Your task to perform on an android device: toggle notification dots Image 0: 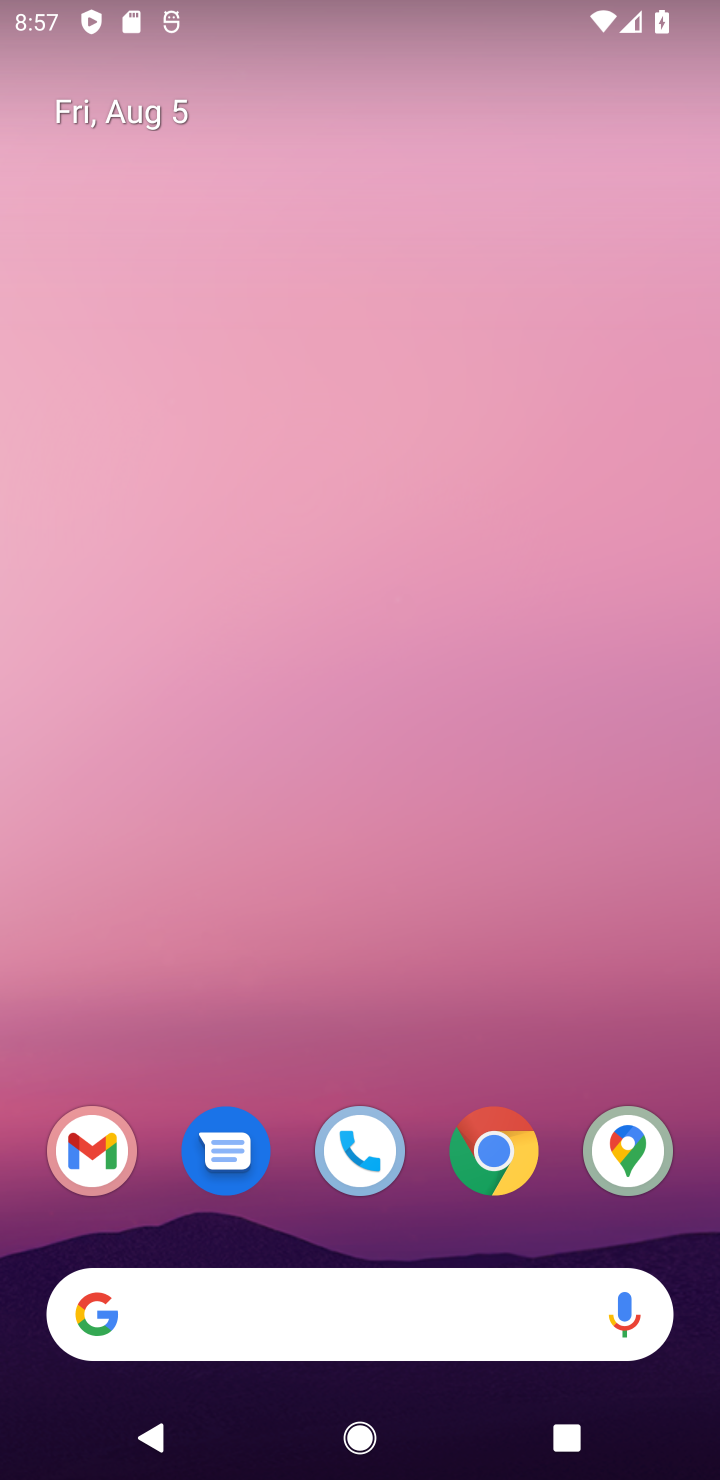
Step 0: drag from (394, 819) to (247, 40)
Your task to perform on an android device: toggle notification dots Image 1: 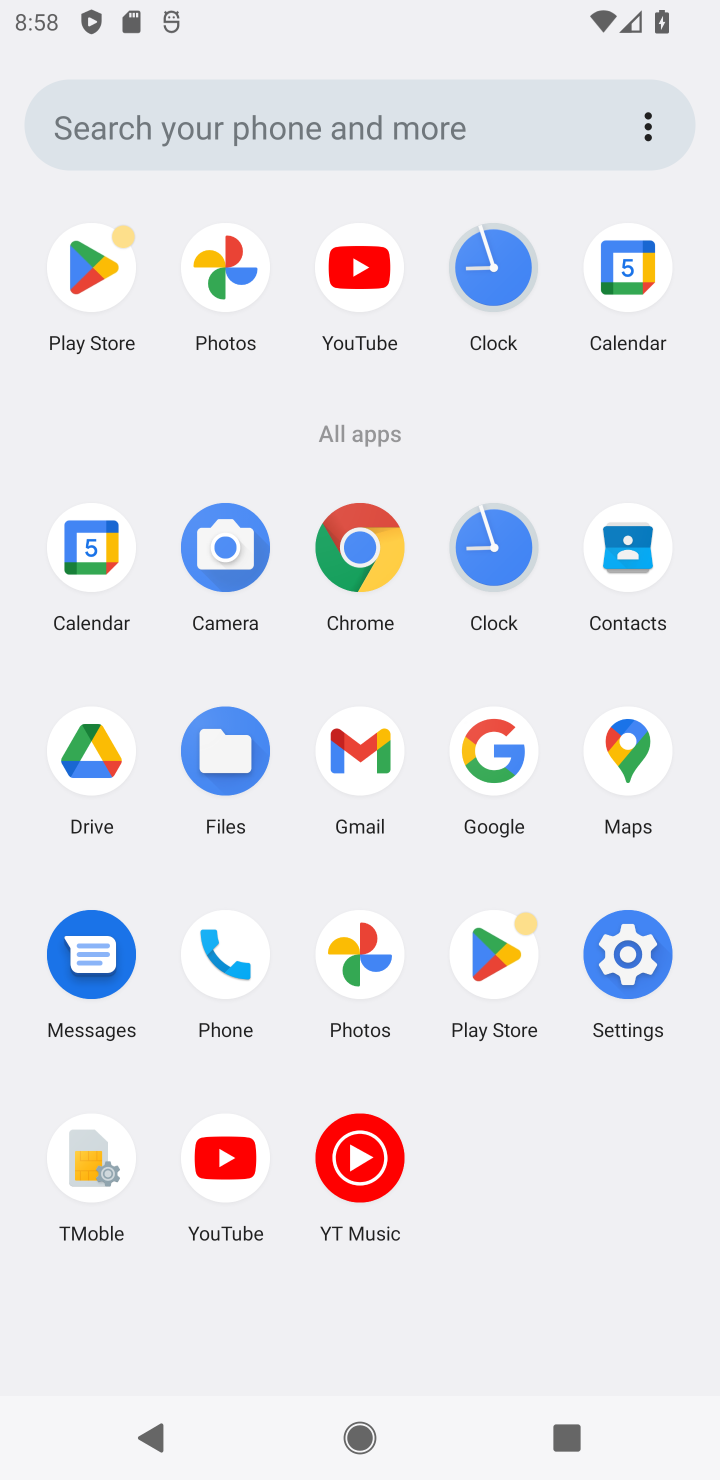
Step 1: drag from (605, 1084) to (643, 954)
Your task to perform on an android device: toggle notification dots Image 2: 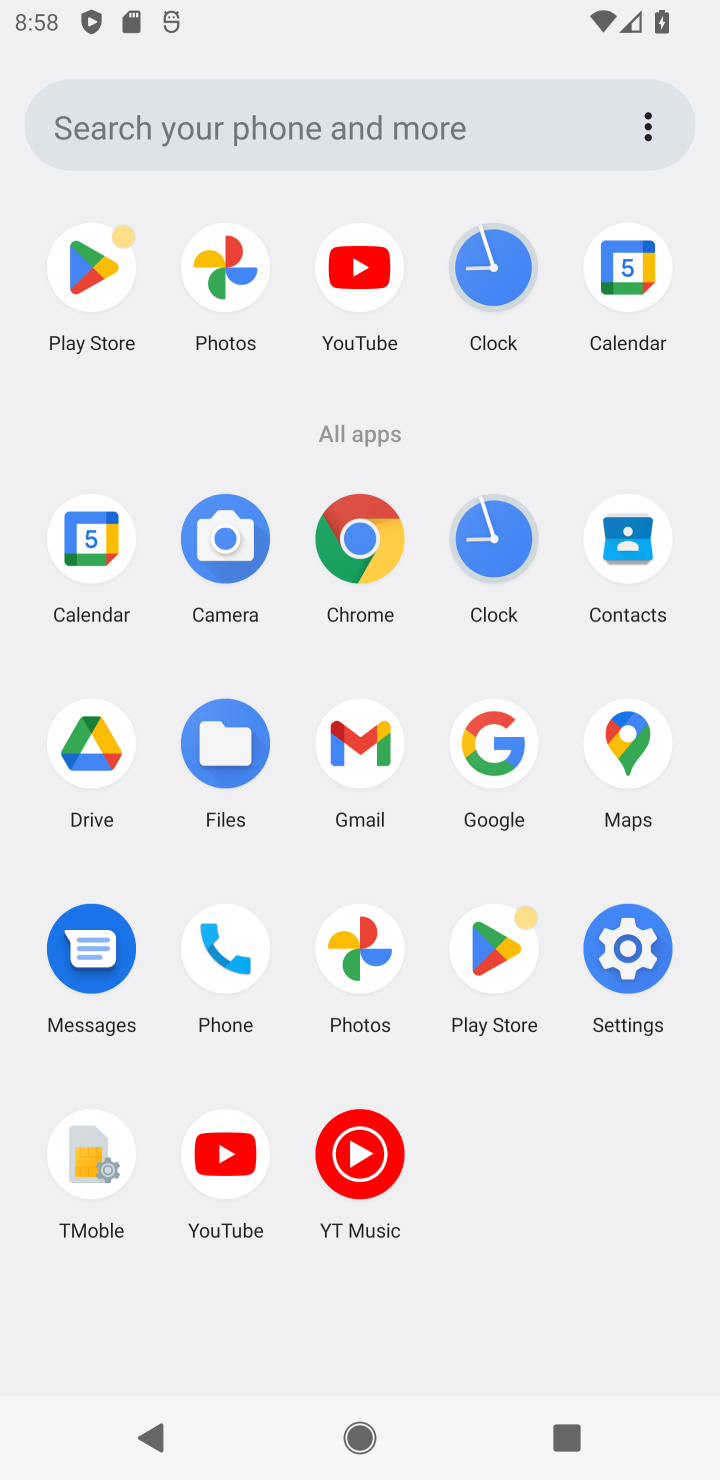
Step 2: click (643, 954)
Your task to perform on an android device: toggle notification dots Image 3: 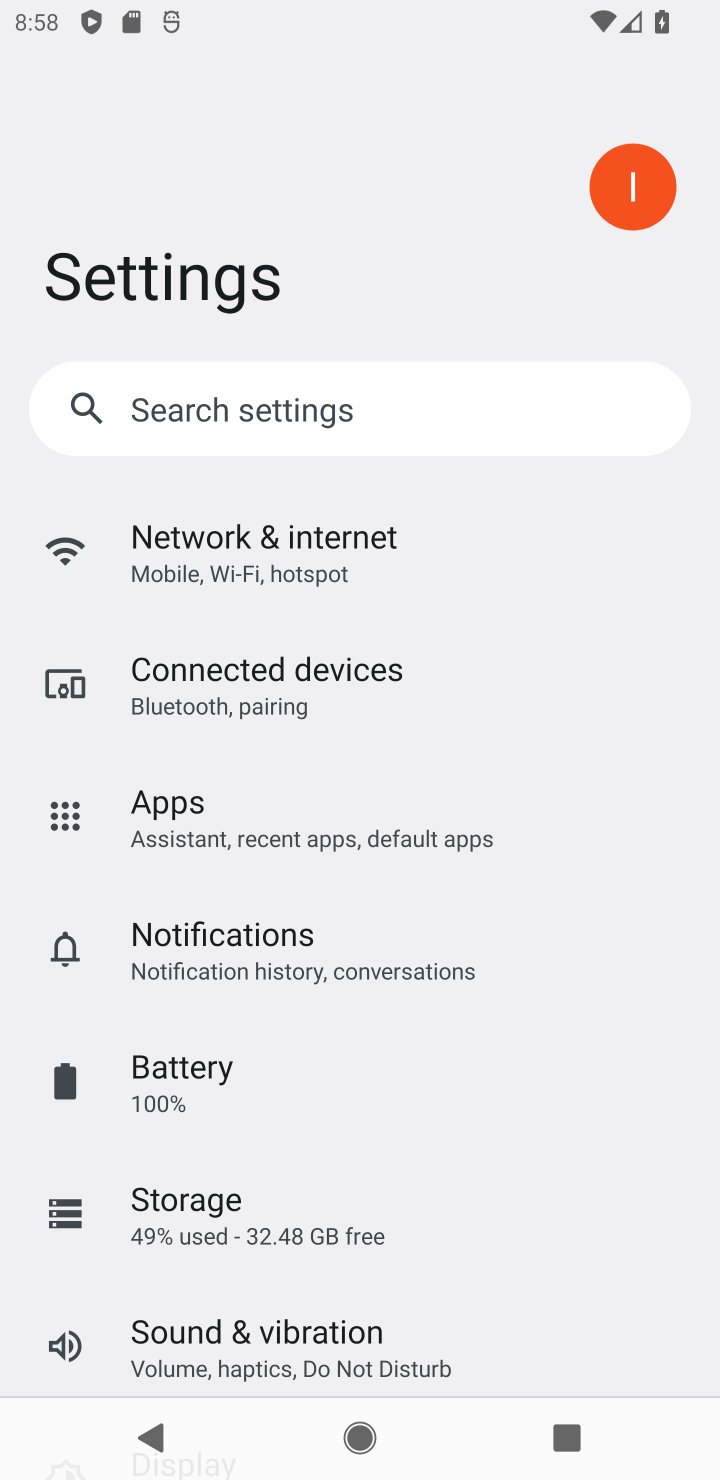
Step 3: click (277, 945)
Your task to perform on an android device: toggle notification dots Image 4: 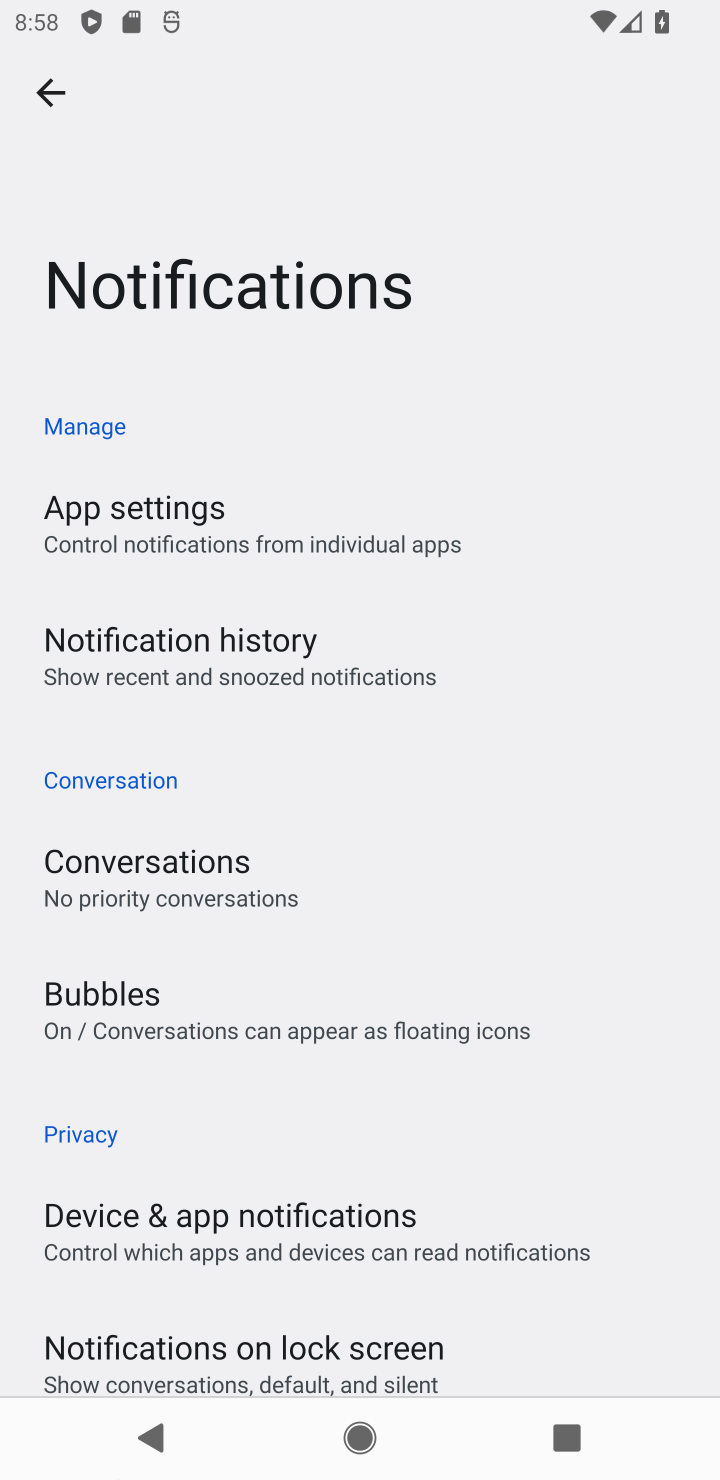
Step 4: drag from (255, 1176) to (203, 537)
Your task to perform on an android device: toggle notification dots Image 5: 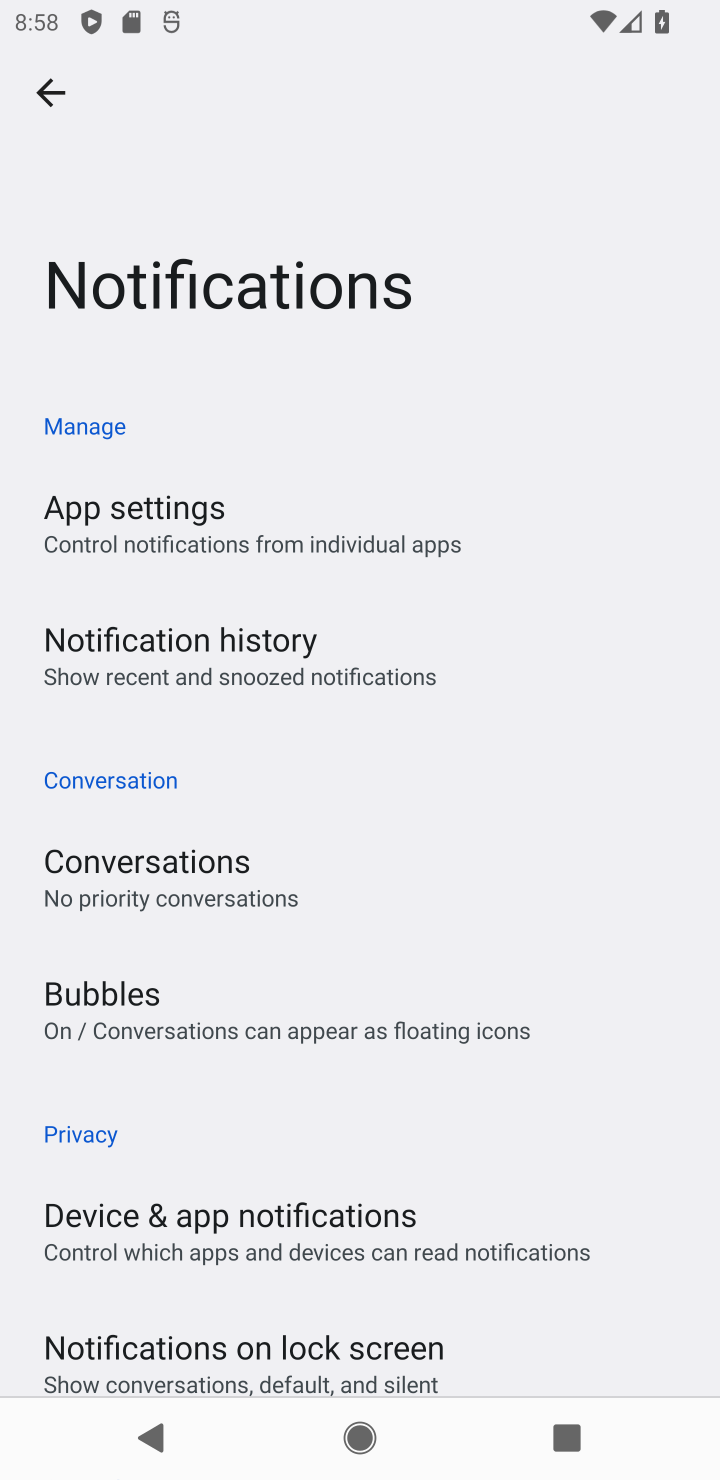
Step 5: drag from (188, 1254) to (180, 770)
Your task to perform on an android device: toggle notification dots Image 6: 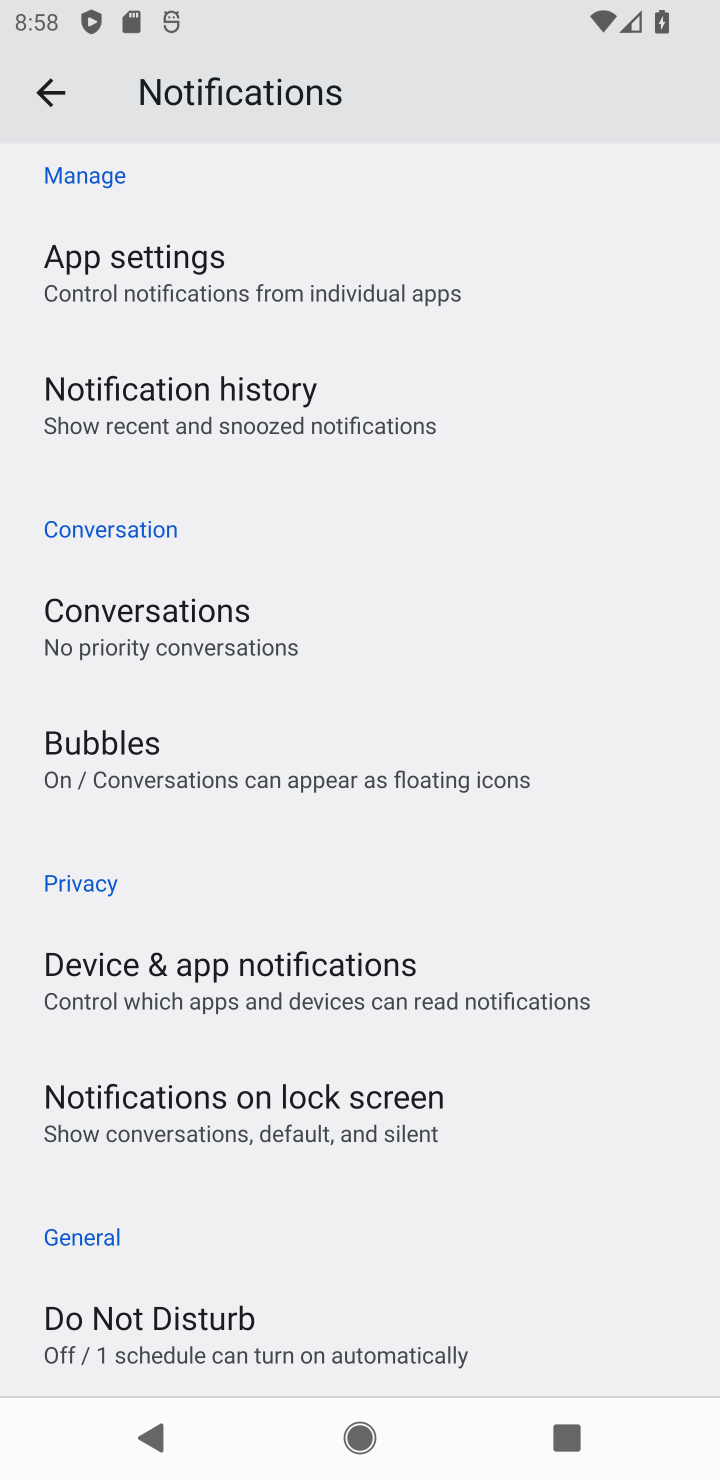
Step 6: drag from (223, 1000) to (213, 362)
Your task to perform on an android device: toggle notification dots Image 7: 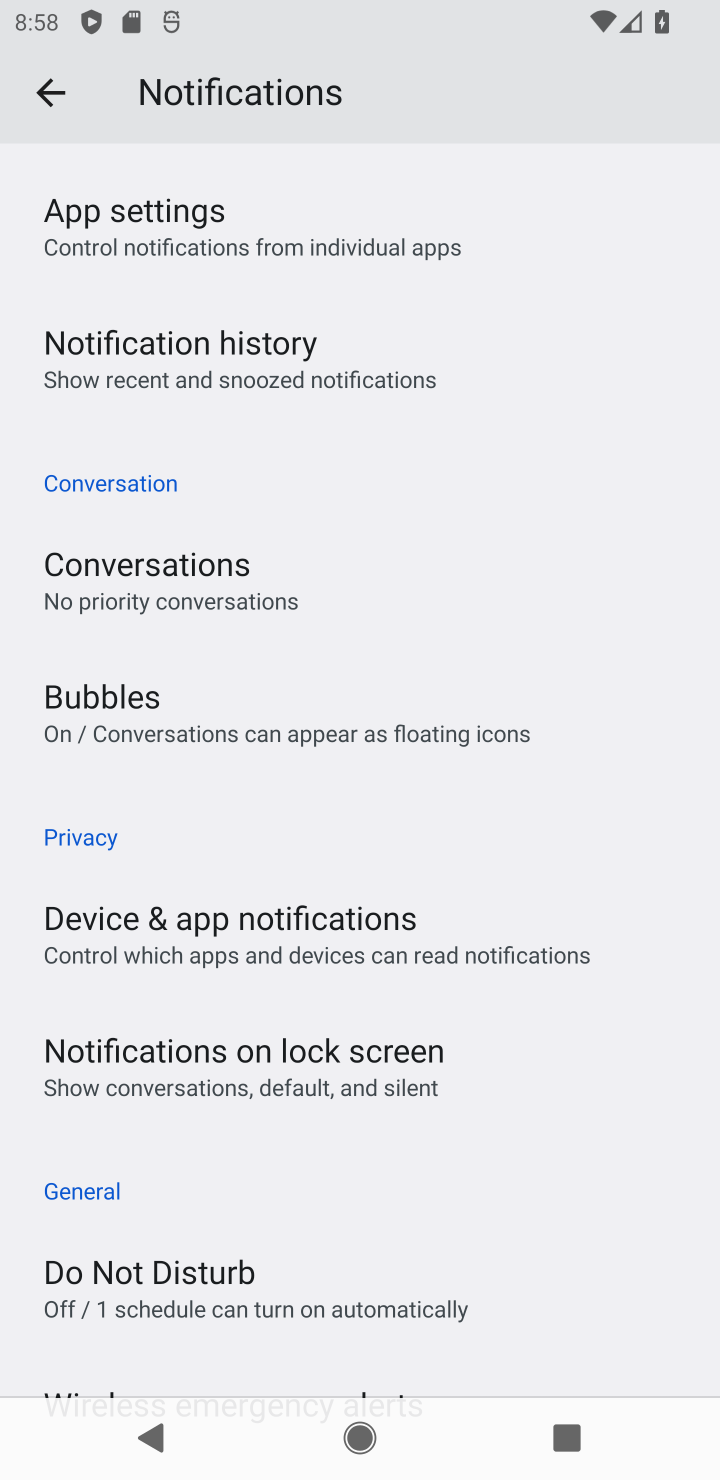
Step 7: drag from (363, 1181) to (322, 446)
Your task to perform on an android device: toggle notification dots Image 8: 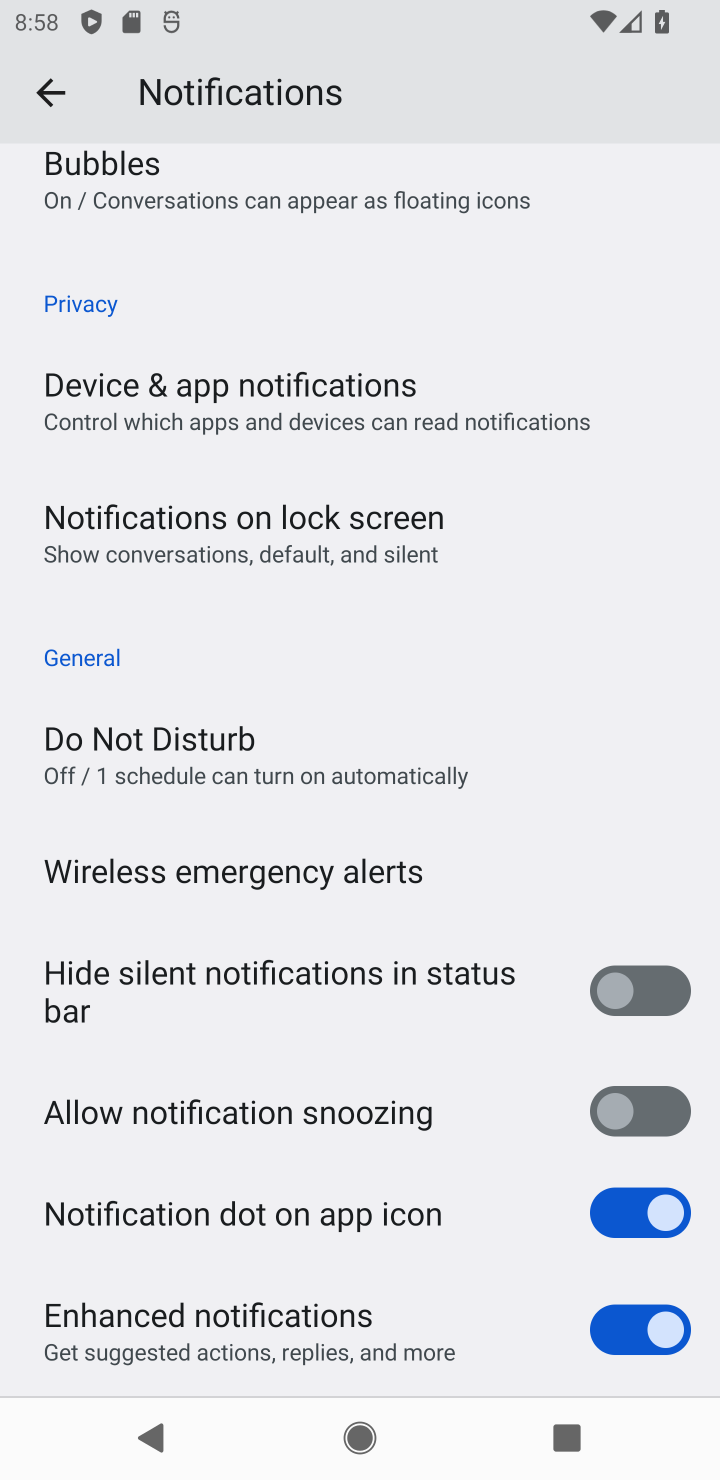
Step 8: drag from (405, 788) to (395, 668)
Your task to perform on an android device: toggle notification dots Image 9: 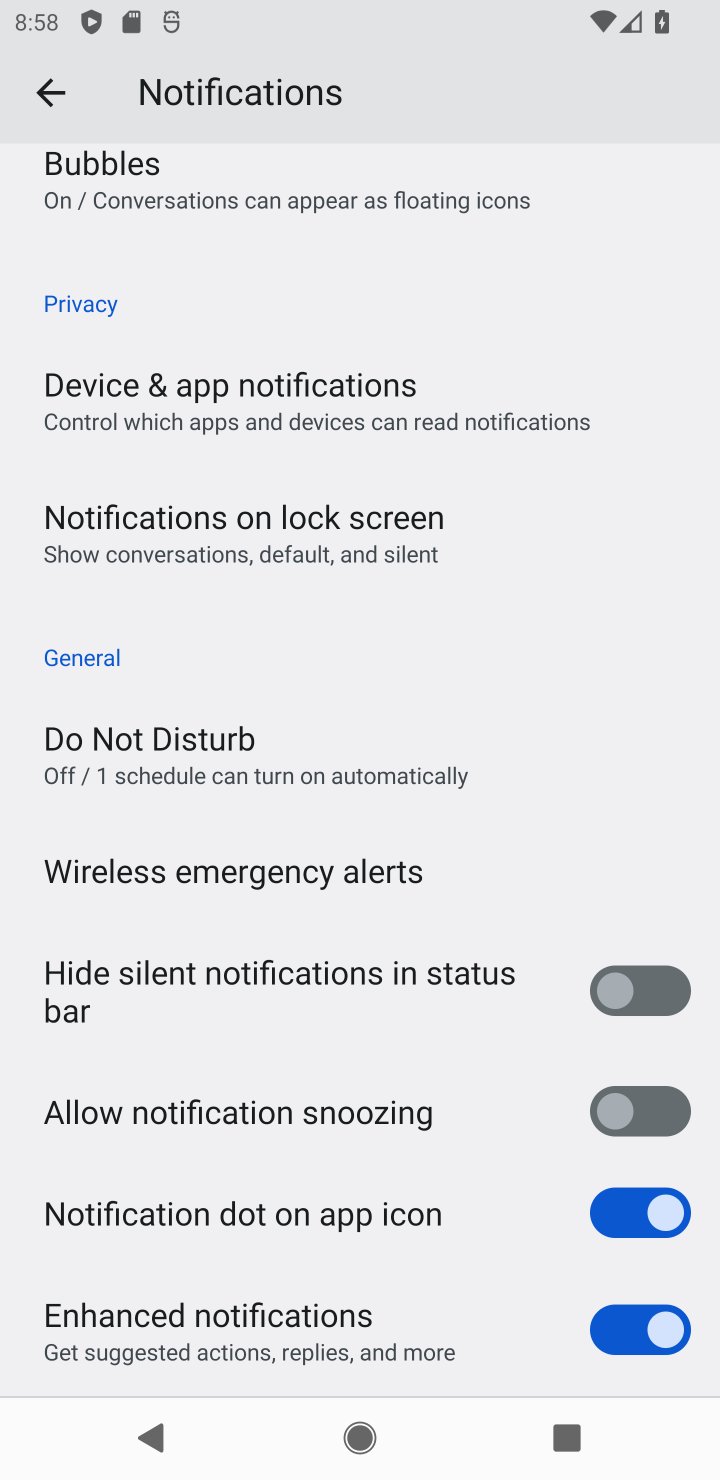
Step 9: drag from (510, 1085) to (502, 421)
Your task to perform on an android device: toggle notification dots Image 10: 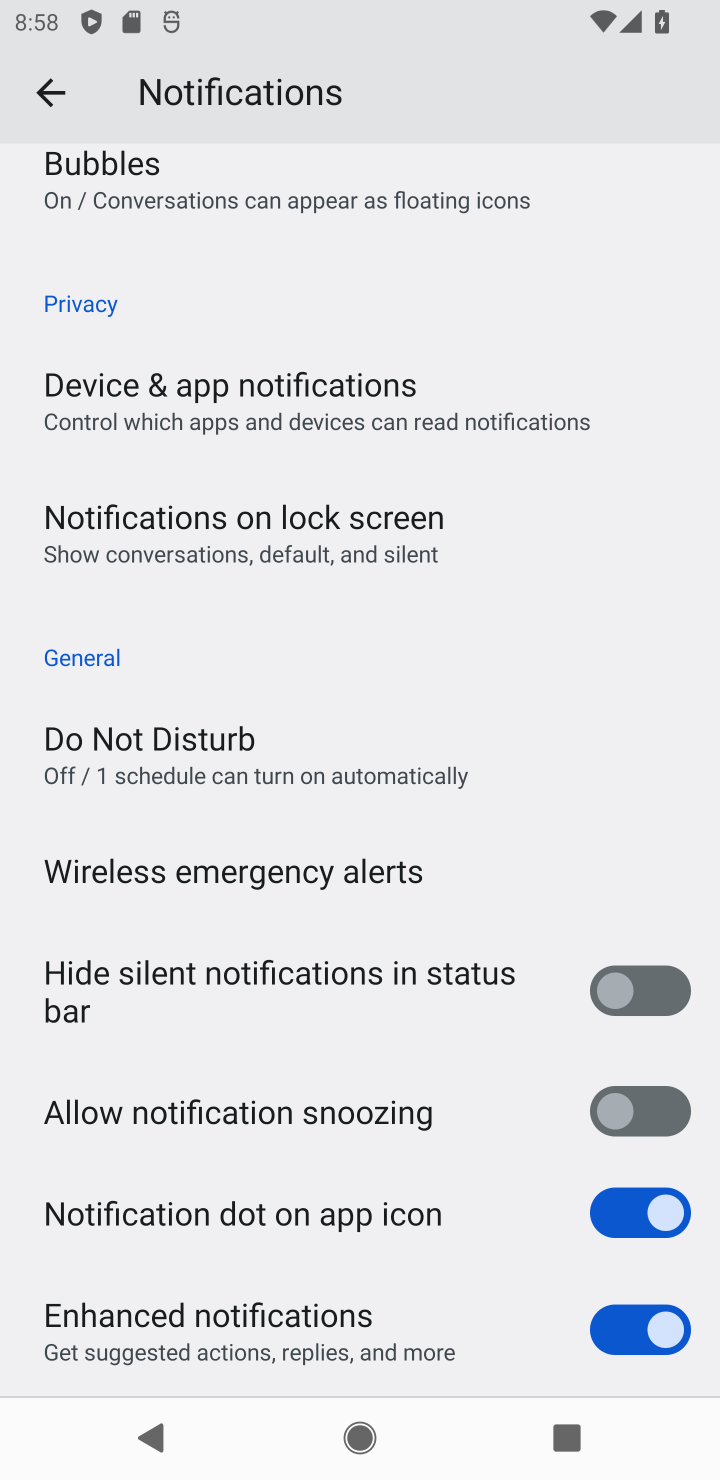
Step 10: click (611, 1215)
Your task to perform on an android device: toggle notification dots Image 11: 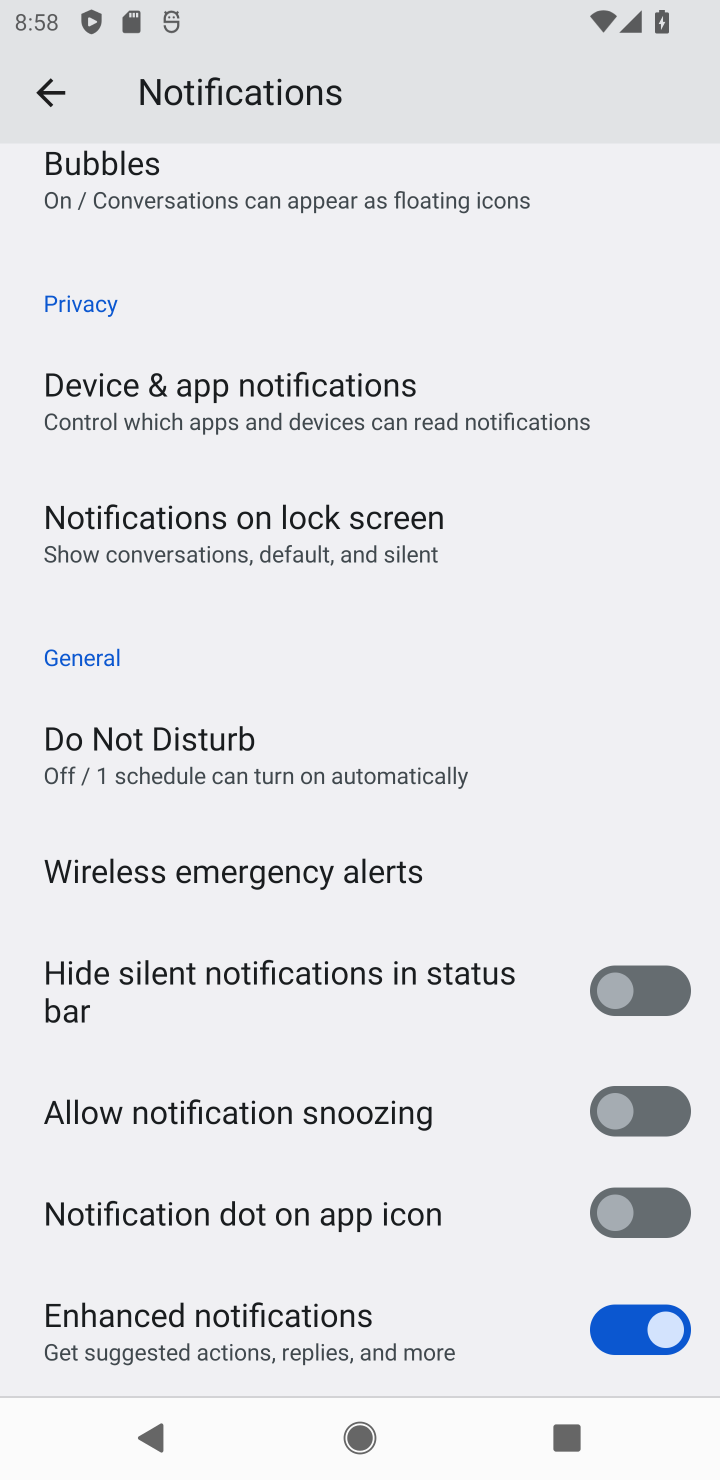
Step 11: task complete